Your task to perform on an android device: Go to Maps Image 0: 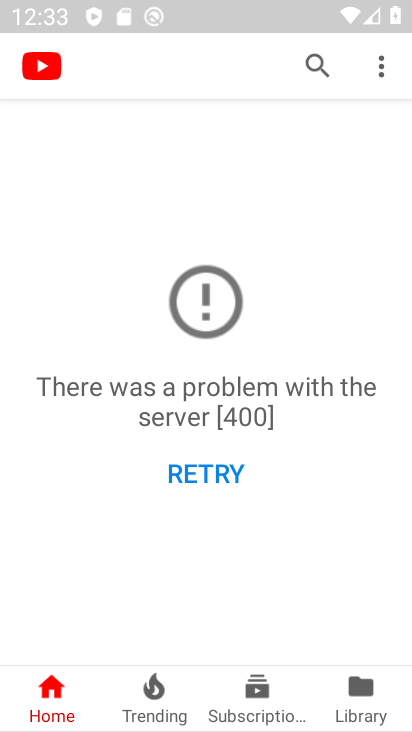
Step 0: press home button
Your task to perform on an android device: Go to Maps Image 1: 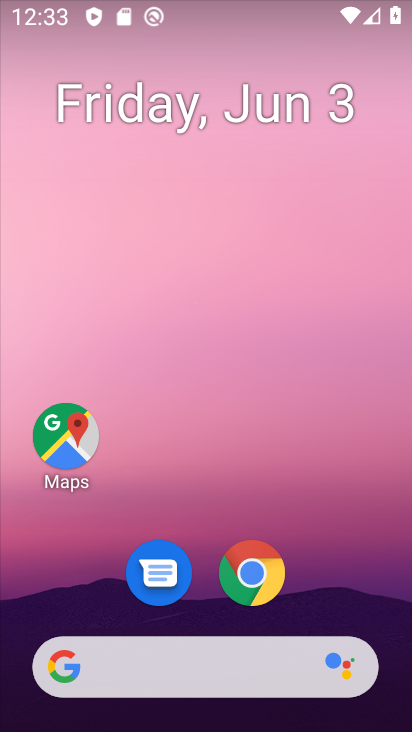
Step 1: click (69, 455)
Your task to perform on an android device: Go to Maps Image 2: 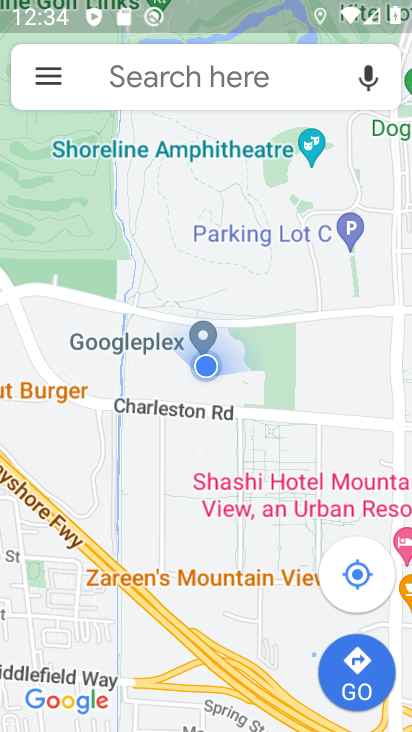
Step 2: task complete